Your task to perform on an android device: change the clock display to digital Image 0: 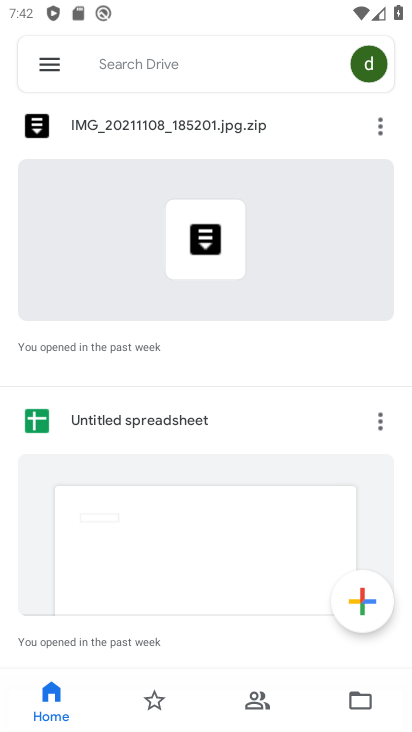
Step 0: drag from (210, 481) to (243, 148)
Your task to perform on an android device: change the clock display to digital Image 1: 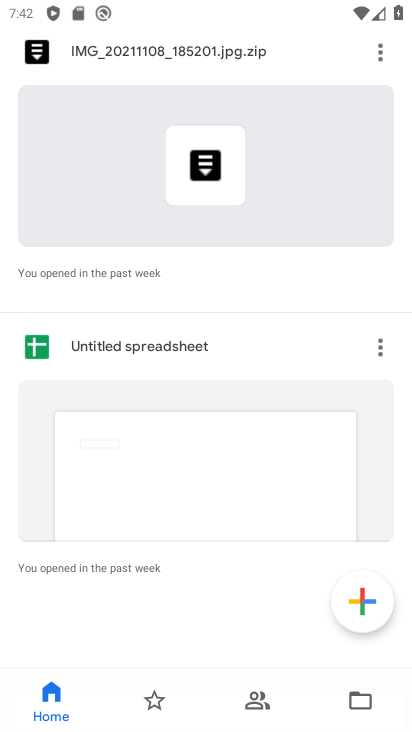
Step 1: drag from (228, 493) to (254, 118)
Your task to perform on an android device: change the clock display to digital Image 2: 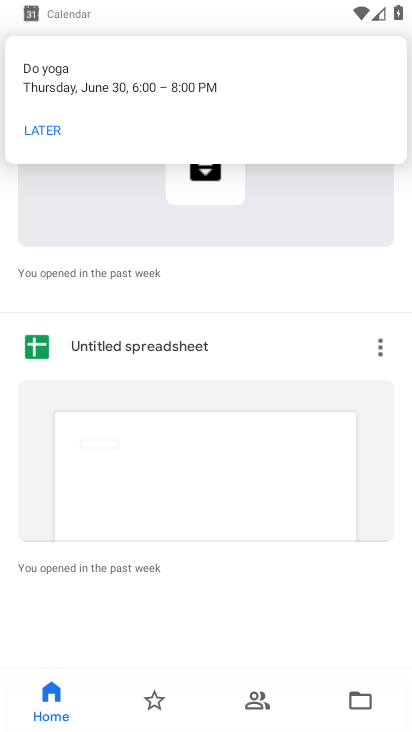
Step 2: click (400, 621)
Your task to perform on an android device: change the clock display to digital Image 3: 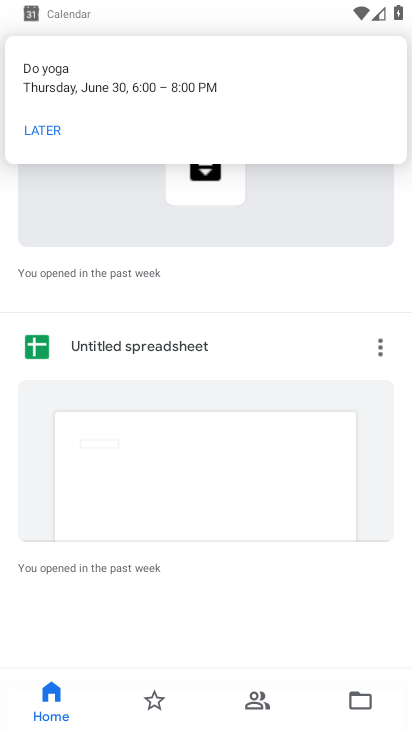
Step 3: press home button
Your task to perform on an android device: change the clock display to digital Image 4: 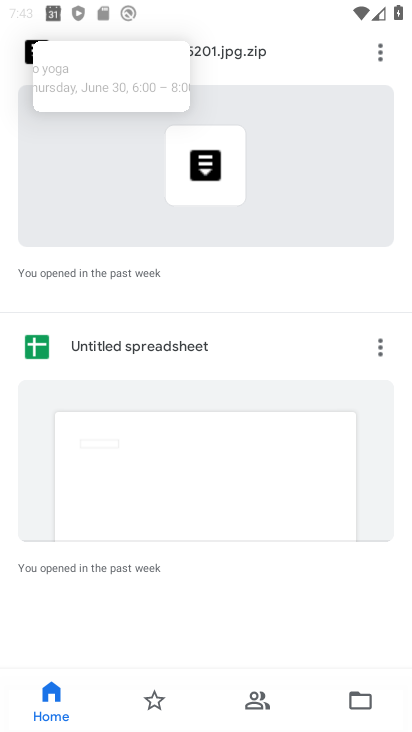
Step 4: drag from (400, 621) to (319, 425)
Your task to perform on an android device: change the clock display to digital Image 5: 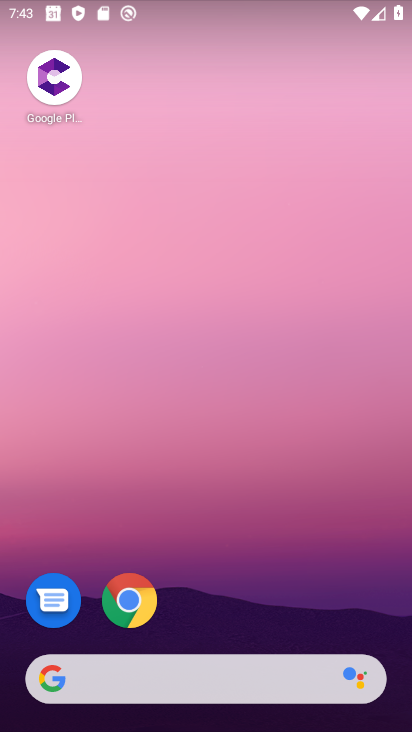
Step 5: drag from (178, 621) to (180, 234)
Your task to perform on an android device: change the clock display to digital Image 6: 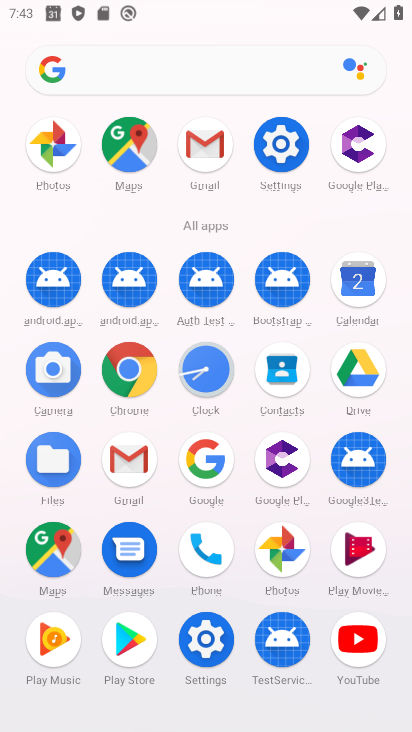
Step 6: click (204, 381)
Your task to perform on an android device: change the clock display to digital Image 7: 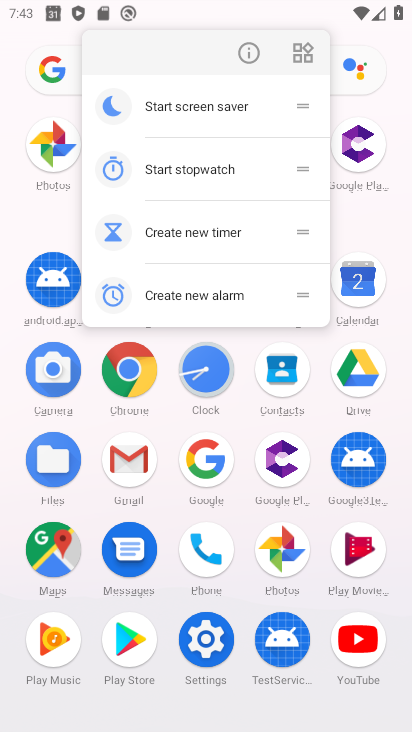
Step 7: click (251, 36)
Your task to perform on an android device: change the clock display to digital Image 8: 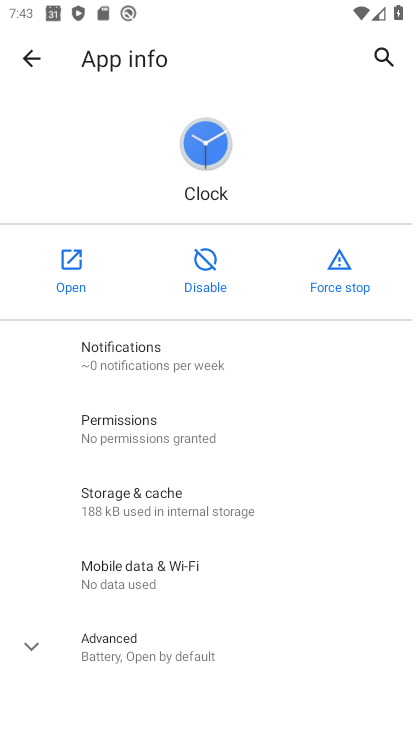
Step 8: click (63, 257)
Your task to perform on an android device: change the clock display to digital Image 9: 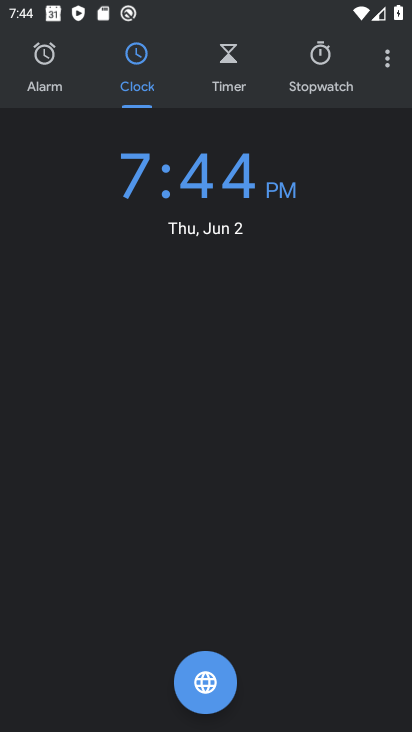
Step 9: click (380, 45)
Your task to perform on an android device: change the clock display to digital Image 10: 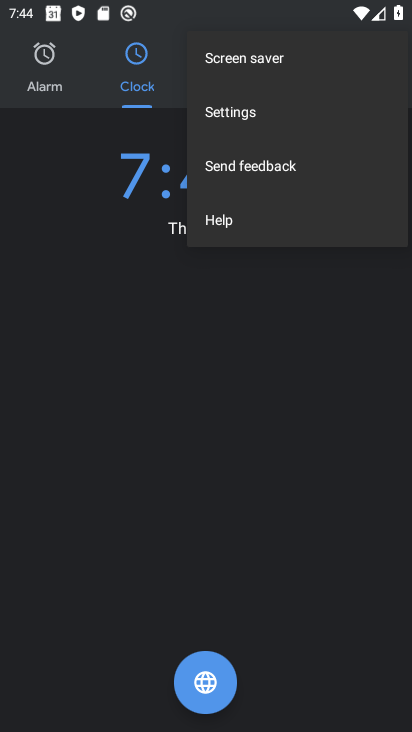
Step 10: click (264, 96)
Your task to perform on an android device: change the clock display to digital Image 11: 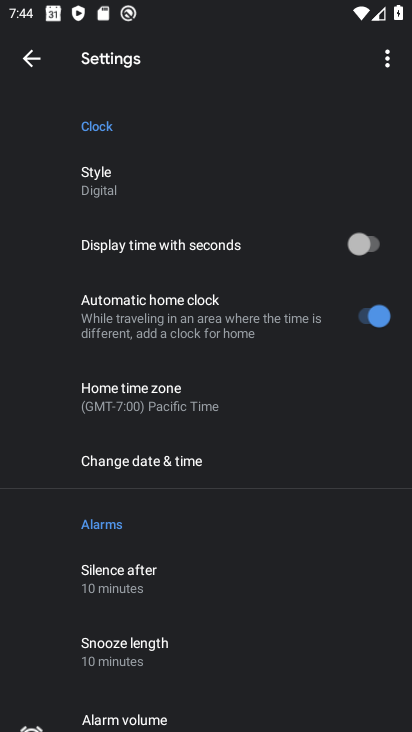
Step 11: click (166, 197)
Your task to perform on an android device: change the clock display to digital Image 12: 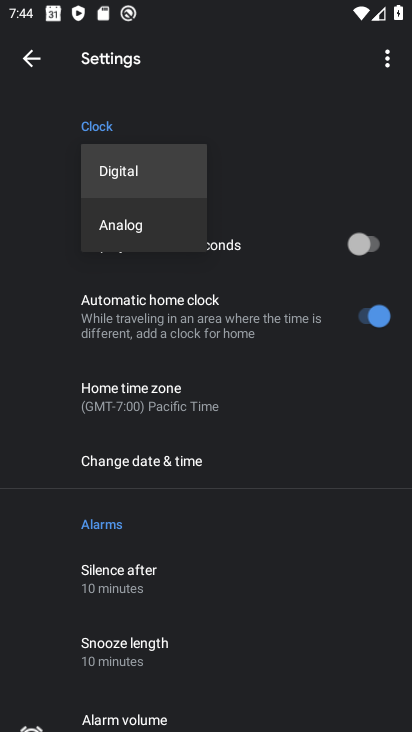
Step 12: click (174, 173)
Your task to perform on an android device: change the clock display to digital Image 13: 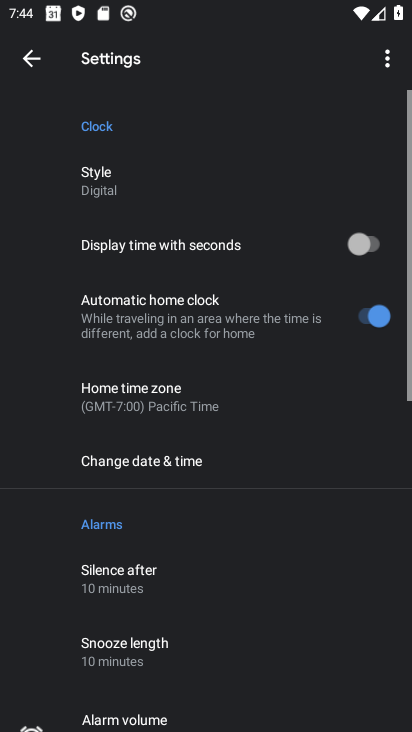
Step 13: task complete